Your task to perform on an android device: toggle sleep mode Image 0: 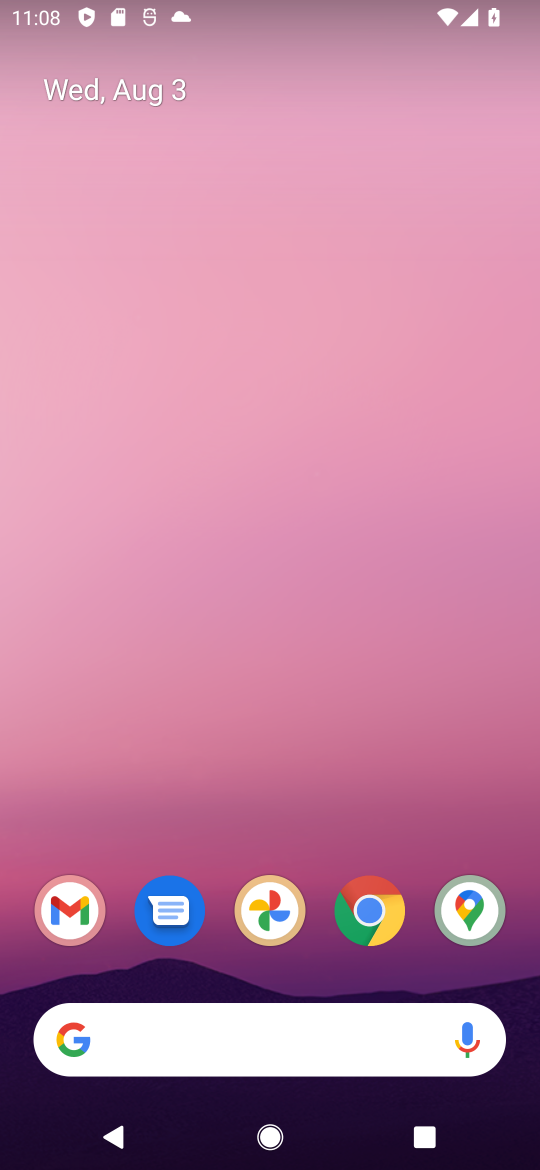
Step 0: press home button
Your task to perform on an android device: toggle sleep mode Image 1: 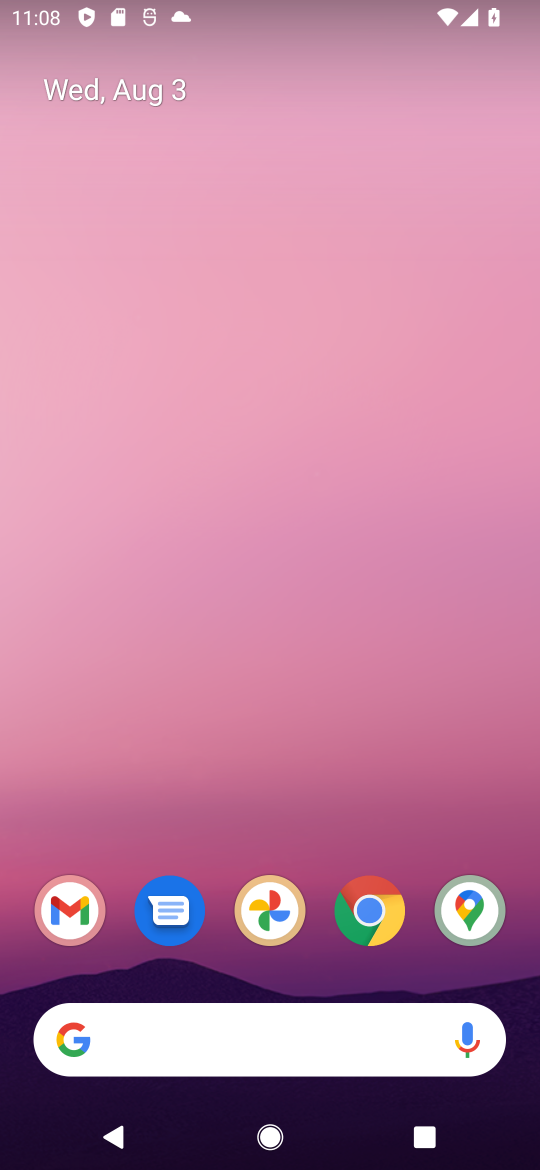
Step 1: press home button
Your task to perform on an android device: toggle sleep mode Image 2: 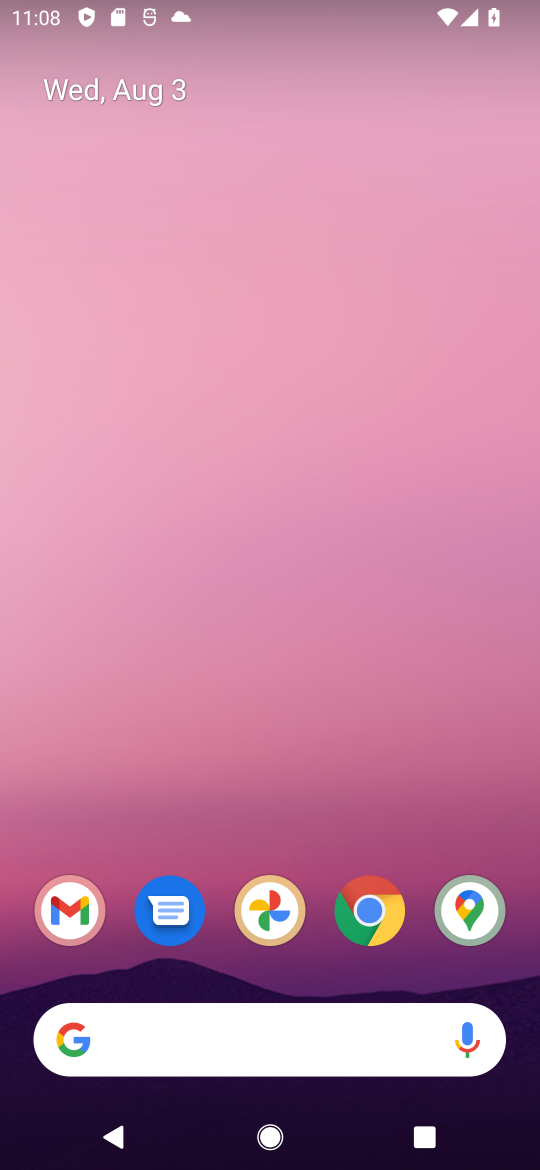
Step 2: click (373, 896)
Your task to perform on an android device: toggle sleep mode Image 3: 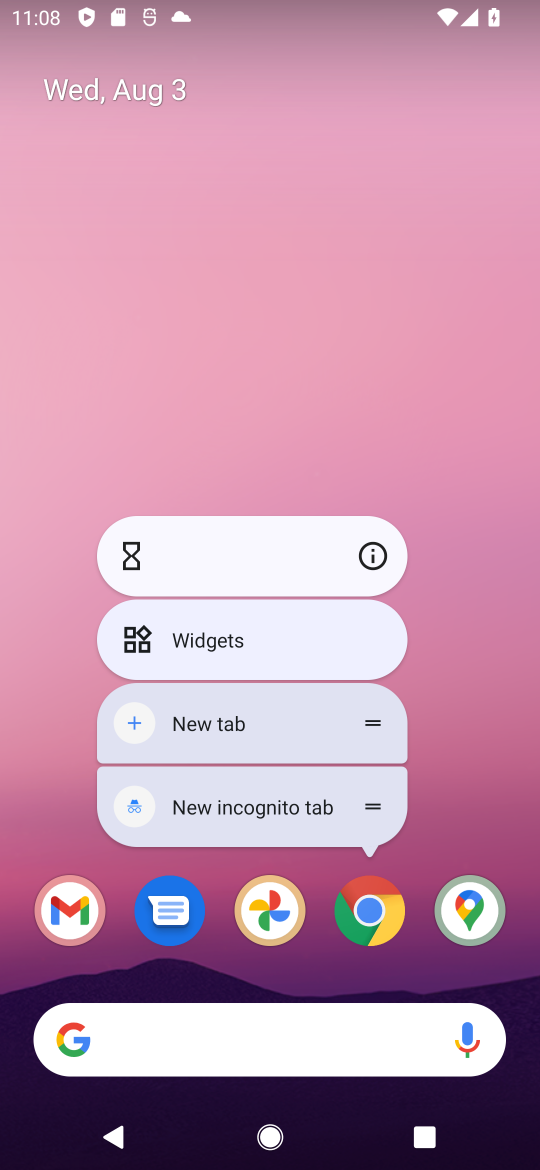
Step 3: click (373, 896)
Your task to perform on an android device: toggle sleep mode Image 4: 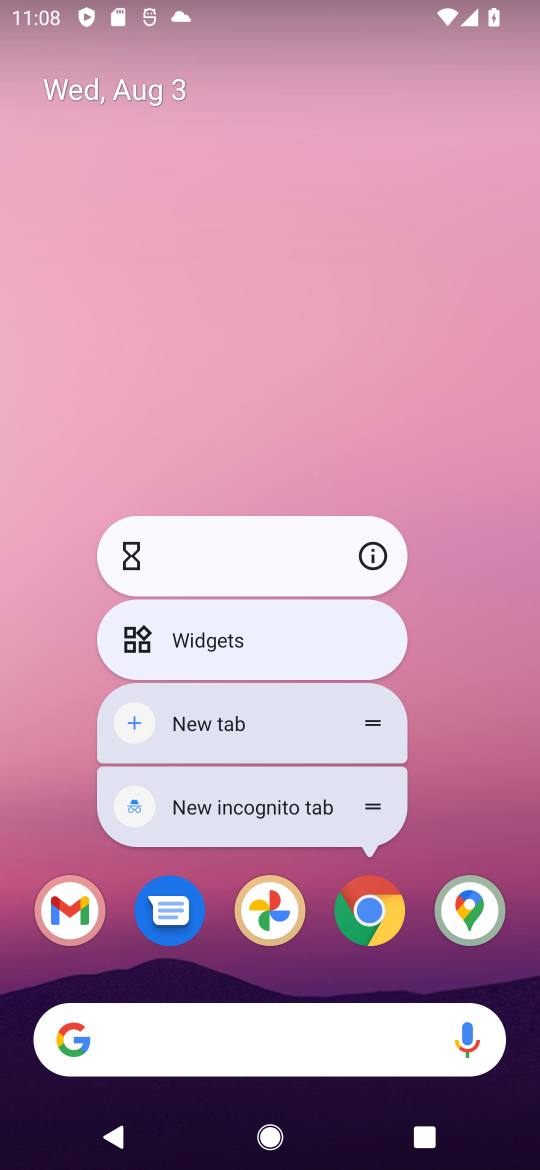
Step 4: click (373, 899)
Your task to perform on an android device: toggle sleep mode Image 5: 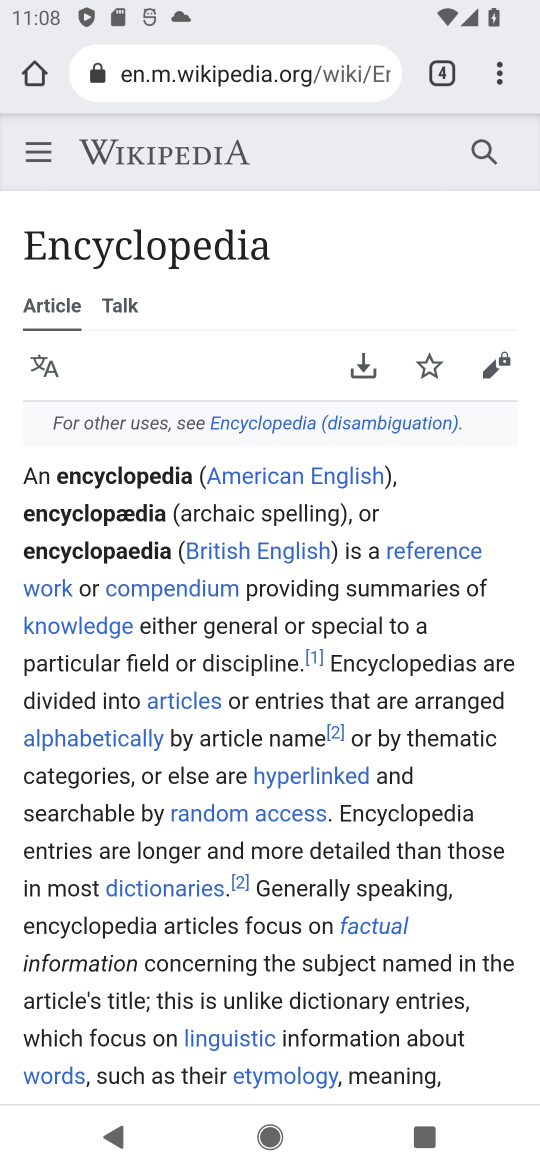
Step 5: press home button
Your task to perform on an android device: toggle sleep mode Image 6: 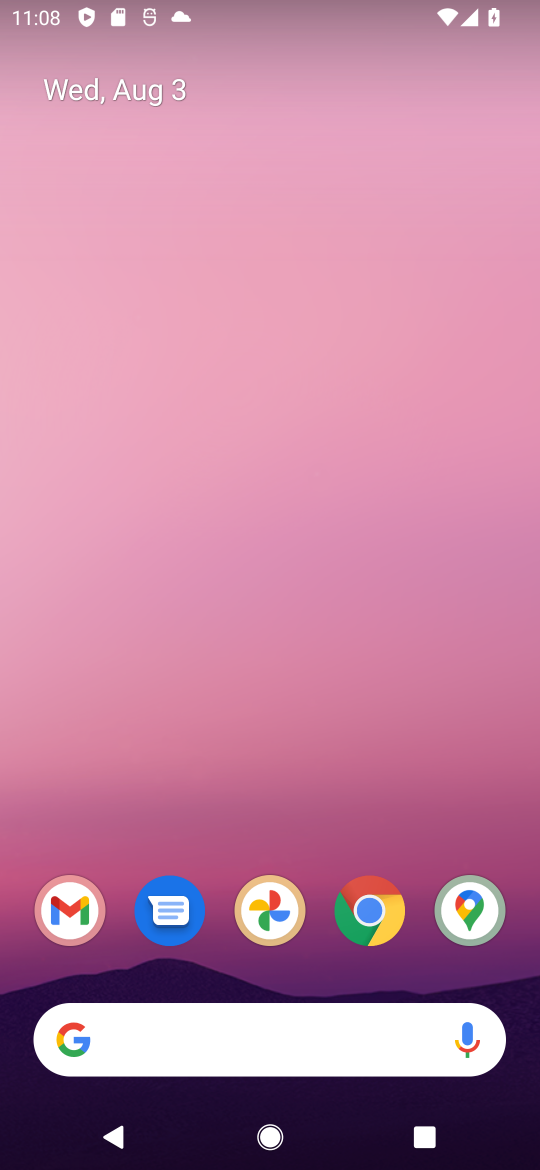
Step 6: drag from (304, 852) to (347, 68)
Your task to perform on an android device: toggle sleep mode Image 7: 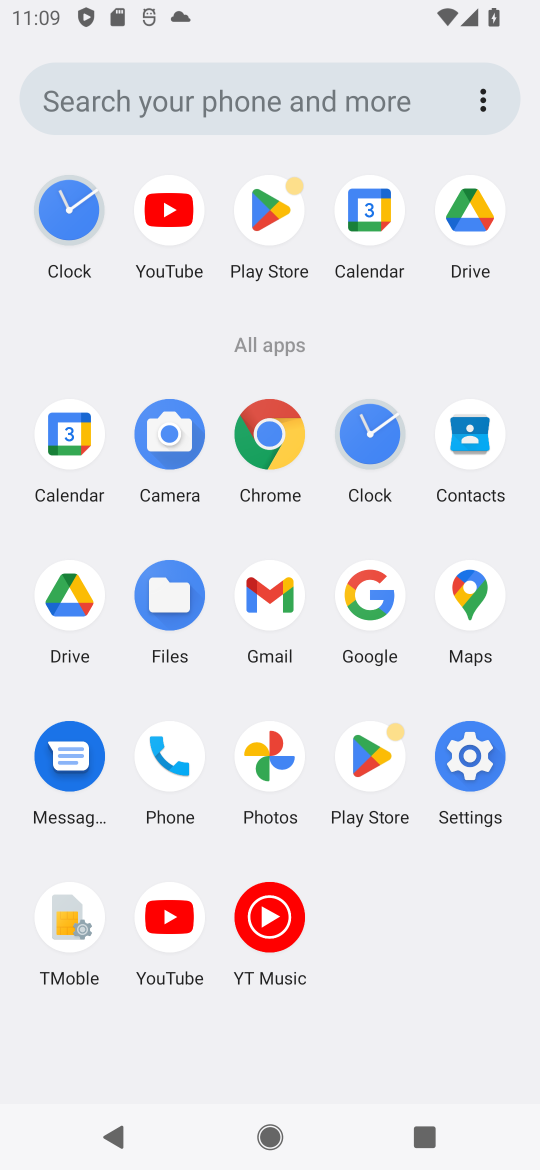
Step 7: click (474, 741)
Your task to perform on an android device: toggle sleep mode Image 8: 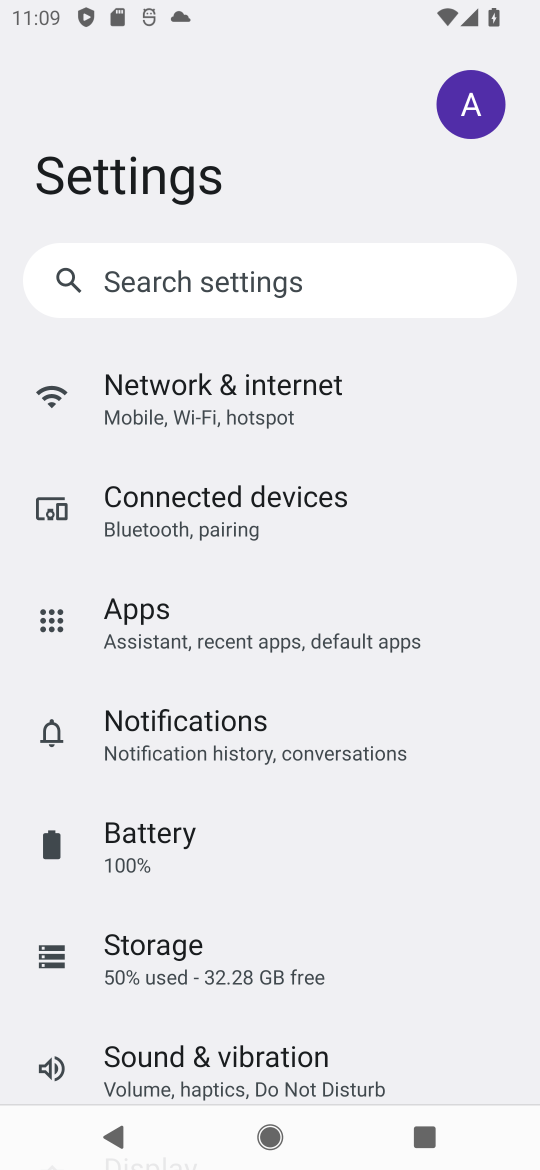
Step 8: drag from (235, 1023) to (257, 330)
Your task to perform on an android device: toggle sleep mode Image 9: 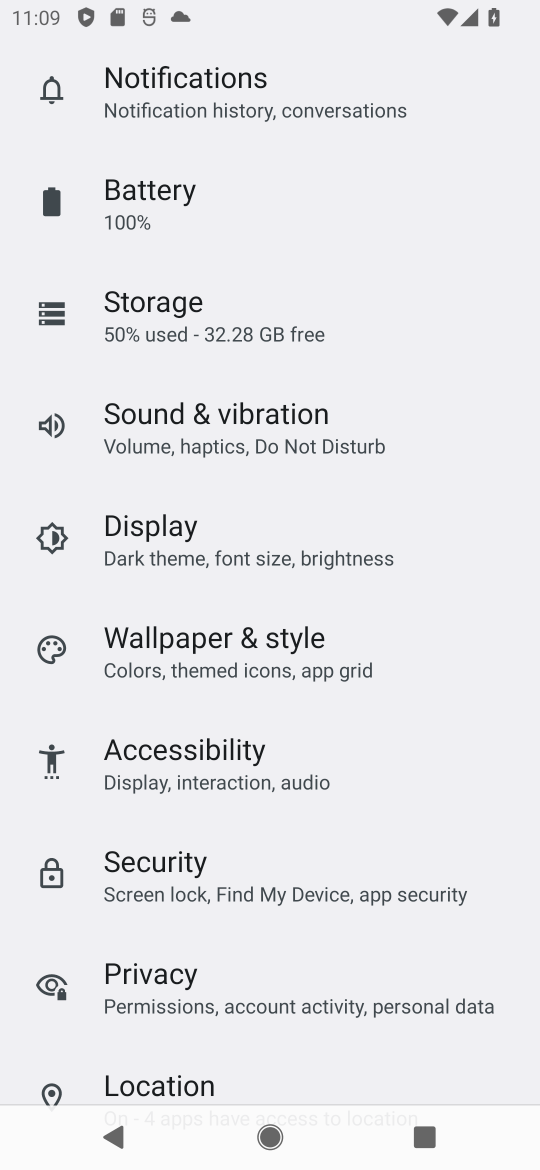
Step 9: click (205, 529)
Your task to perform on an android device: toggle sleep mode Image 10: 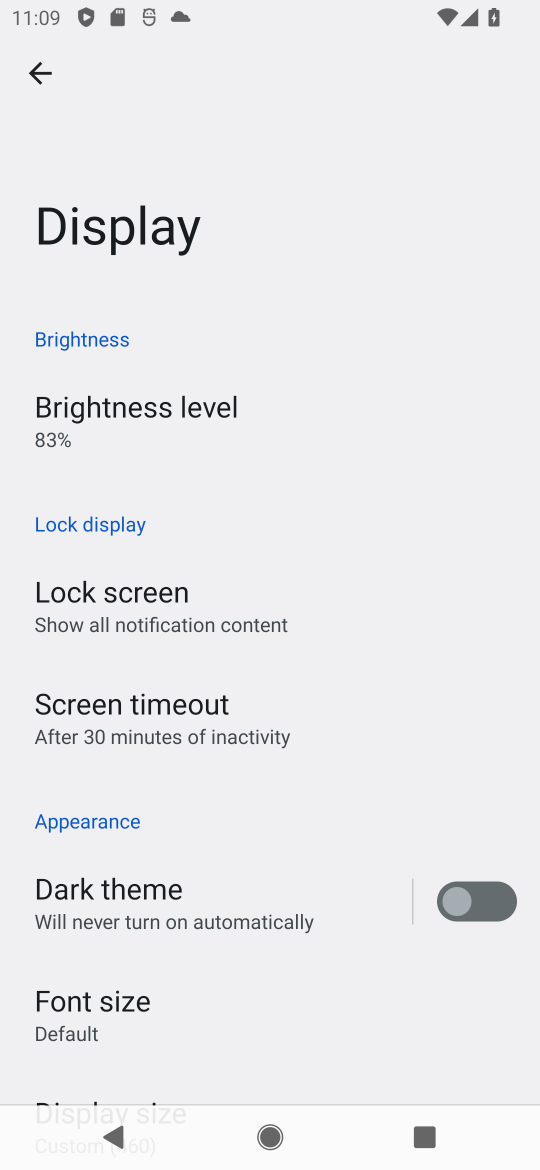
Step 10: task complete